Your task to perform on an android device: turn on priority inbox in the gmail app Image 0: 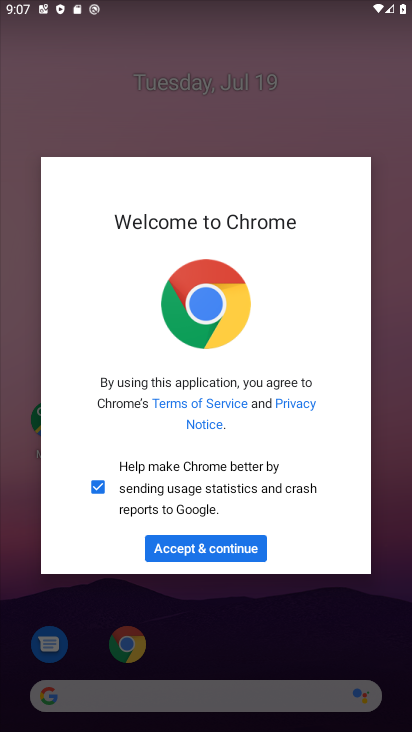
Step 0: press home button
Your task to perform on an android device: turn on priority inbox in the gmail app Image 1: 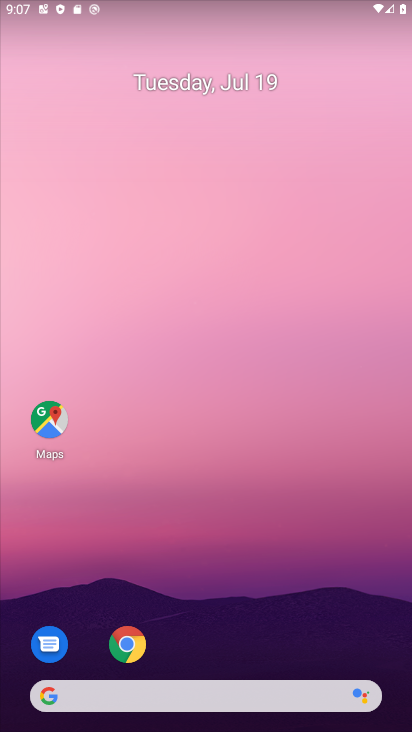
Step 1: drag from (183, 659) to (96, 2)
Your task to perform on an android device: turn on priority inbox in the gmail app Image 2: 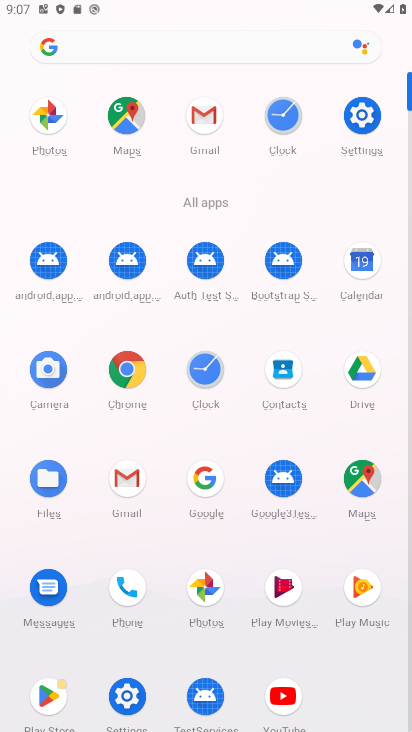
Step 2: click (124, 462)
Your task to perform on an android device: turn on priority inbox in the gmail app Image 3: 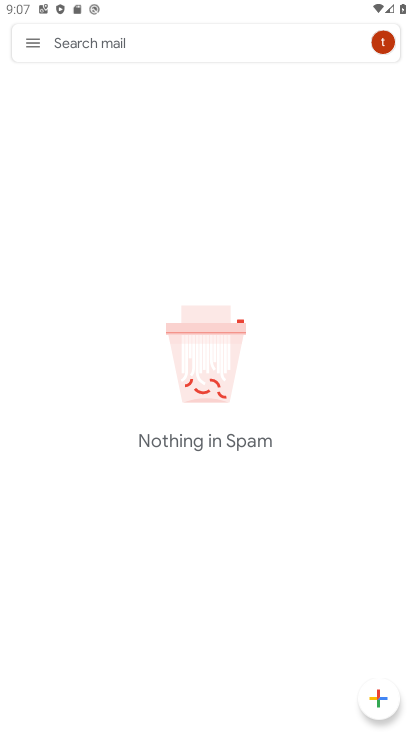
Step 3: click (26, 42)
Your task to perform on an android device: turn on priority inbox in the gmail app Image 4: 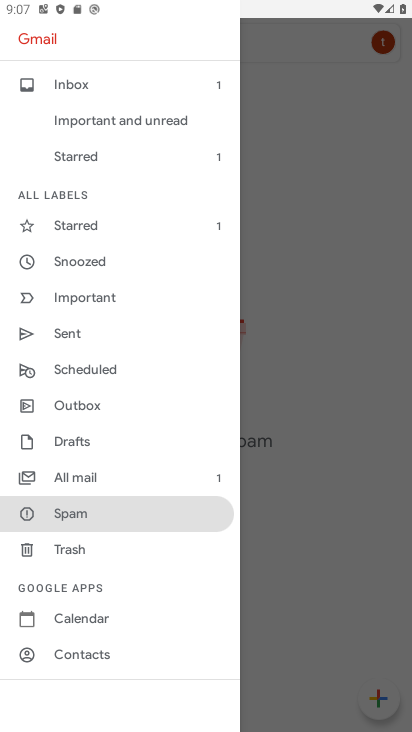
Step 4: drag from (137, 632) to (98, 217)
Your task to perform on an android device: turn on priority inbox in the gmail app Image 5: 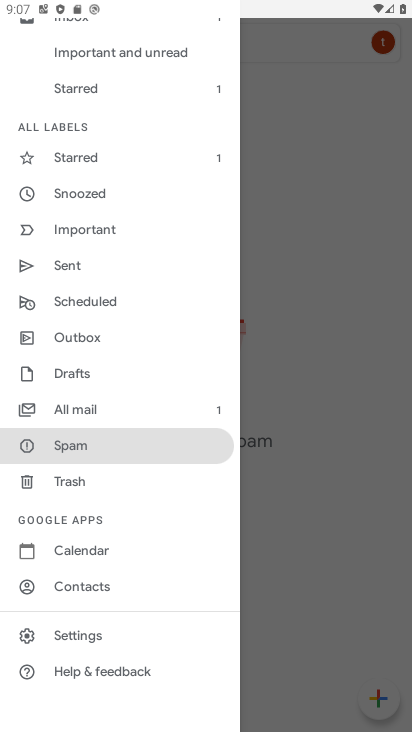
Step 5: click (104, 630)
Your task to perform on an android device: turn on priority inbox in the gmail app Image 6: 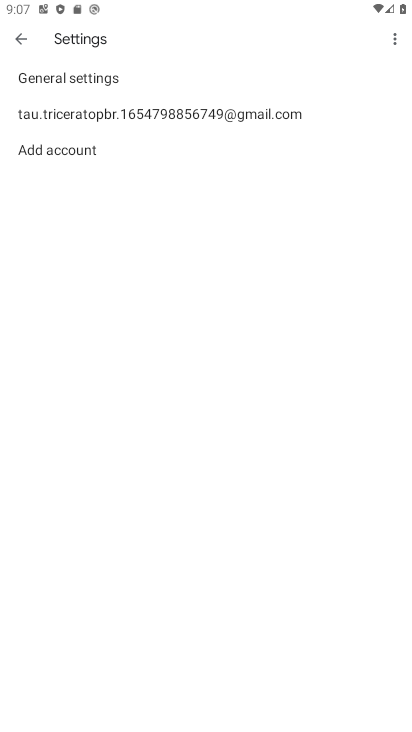
Step 6: click (70, 100)
Your task to perform on an android device: turn on priority inbox in the gmail app Image 7: 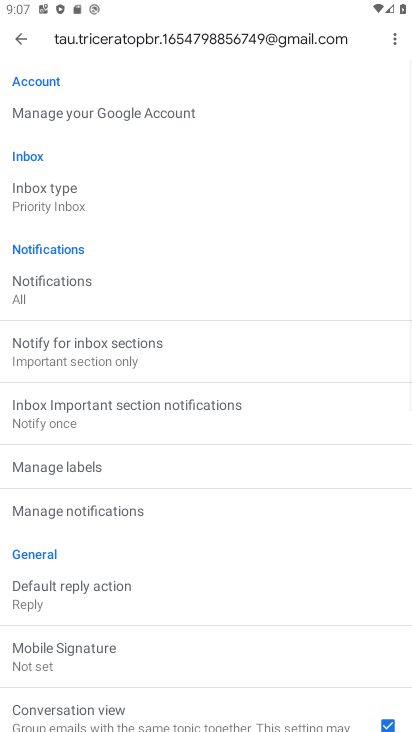
Step 7: click (69, 183)
Your task to perform on an android device: turn on priority inbox in the gmail app Image 8: 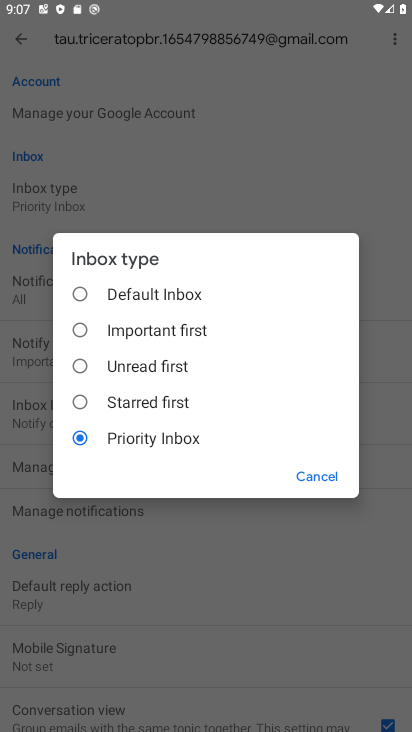
Step 8: click (100, 446)
Your task to perform on an android device: turn on priority inbox in the gmail app Image 9: 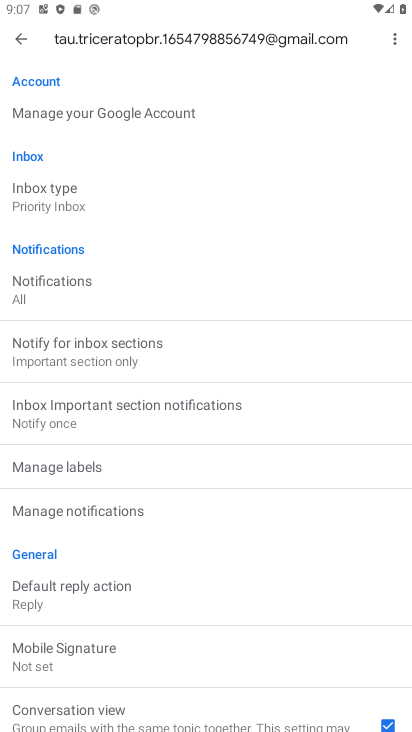
Step 9: task complete